Your task to perform on an android device: Open settings Image 0: 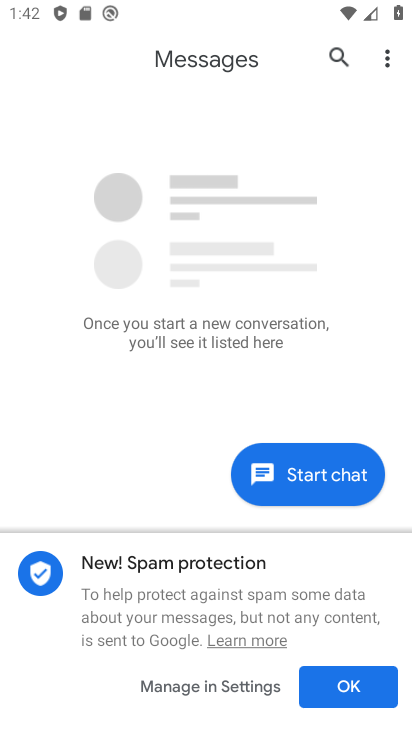
Step 0: press home button
Your task to perform on an android device: Open settings Image 1: 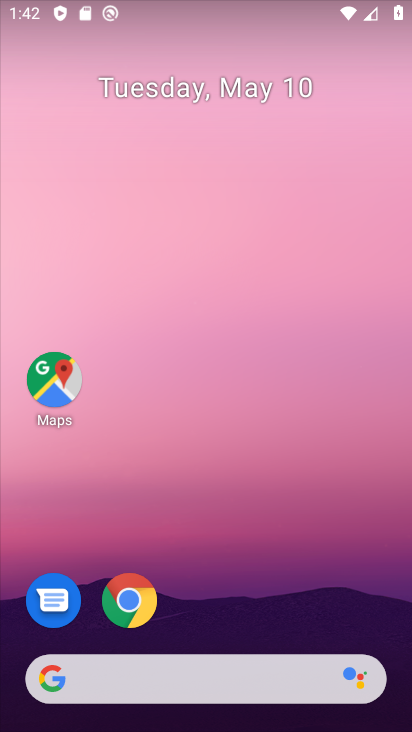
Step 1: drag from (259, 611) to (328, 14)
Your task to perform on an android device: Open settings Image 2: 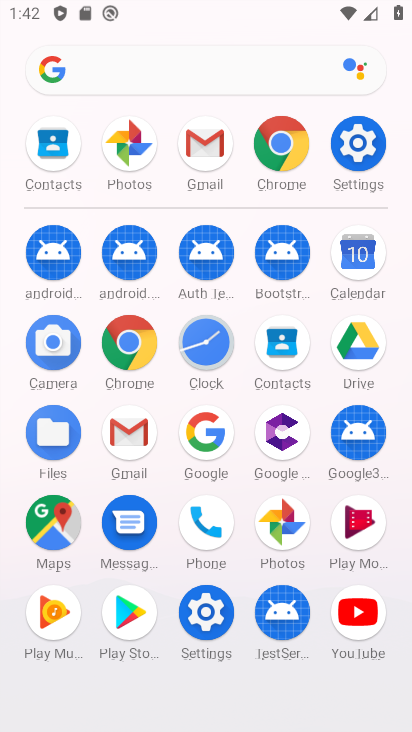
Step 2: click (217, 605)
Your task to perform on an android device: Open settings Image 3: 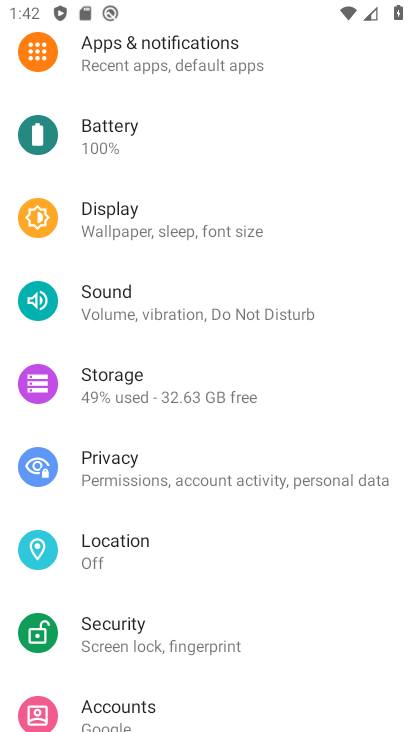
Step 3: click (153, 553)
Your task to perform on an android device: Open settings Image 4: 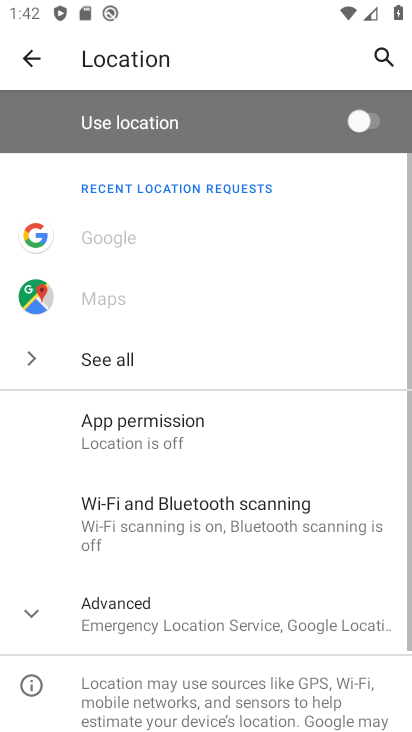
Step 4: task complete